Your task to perform on an android device: Open Chrome and go to settings Image 0: 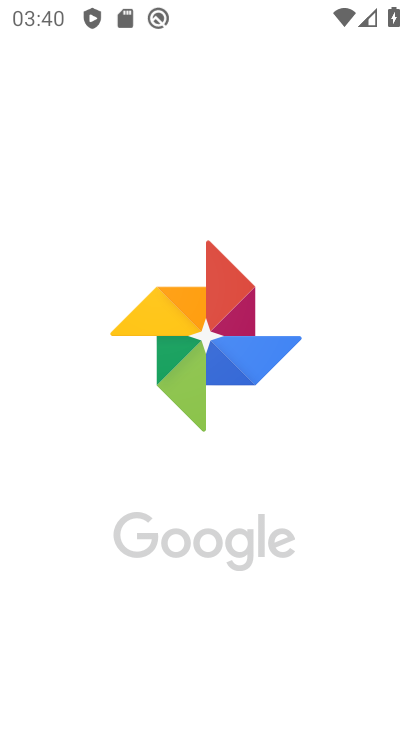
Step 0: drag from (376, 597) to (336, 139)
Your task to perform on an android device: Open Chrome and go to settings Image 1: 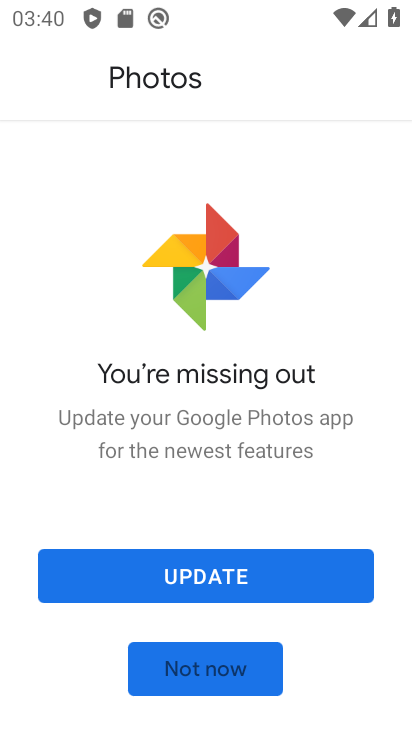
Step 1: press home button
Your task to perform on an android device: Open Chrome and go to settings Image 2: 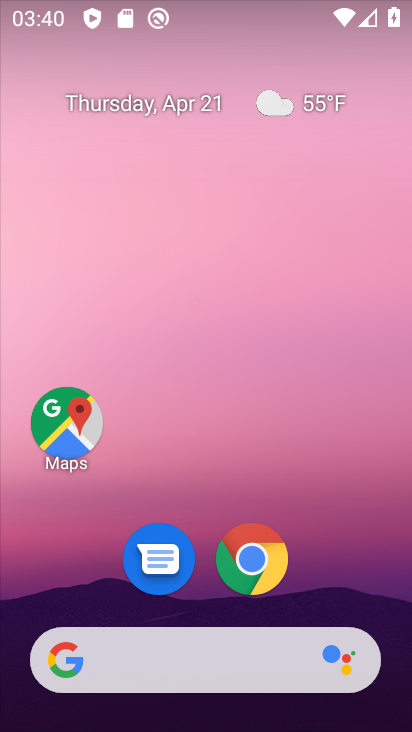
Step 2: drag from (372, 555) to (294, 24)
Your task to perform on an android device: Open Chrome and go to settings Image 3: 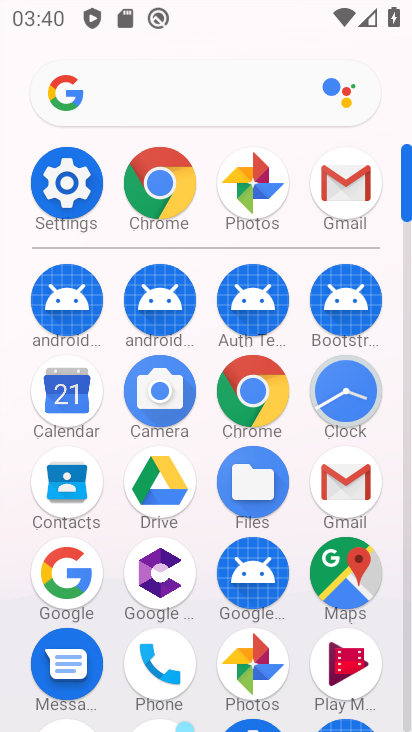
Step 3: click (169, 167)
Your task to perform on an android device: Open Chrome and go to settings Image 4: 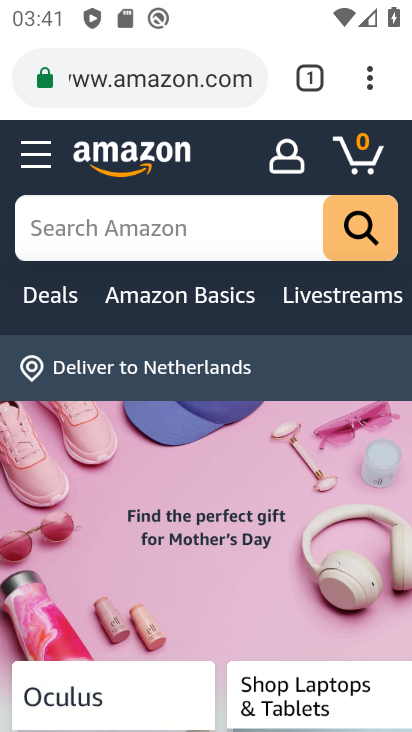
Step 4: click (372, 90)
Your task to perform on an android device: Open Chrome and go to settings Image 5: 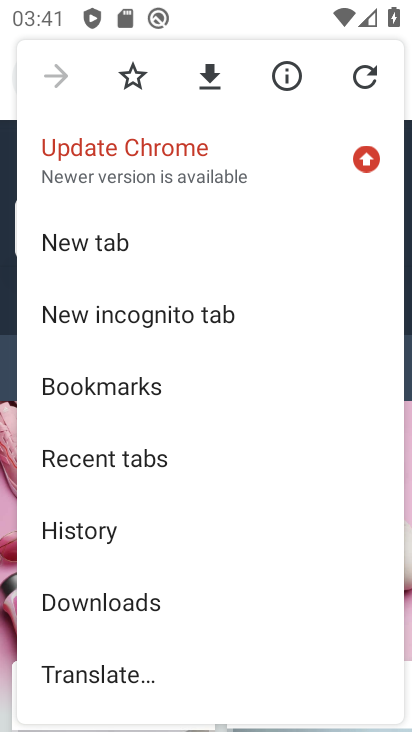
Step 5: drag from (228, 541) to (207, 53)
Your task to perform on an android device: Open Chrome and go to settings Image 6: 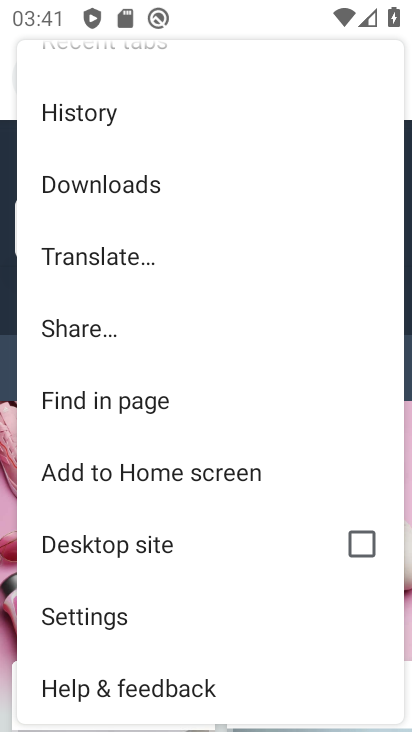
Step 6: click (90, 616)
Your task to perform on an android device: Open Chrome and go to settings Image 7: 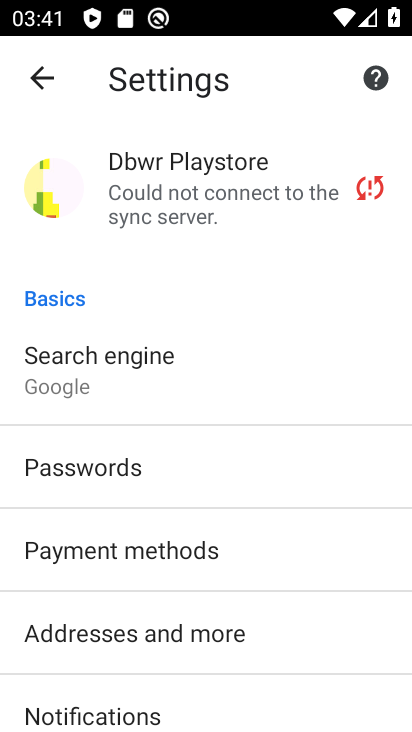
Step 7: task complete